Your task to perform on an android device: add a label to a message in the gmail app Image 0: 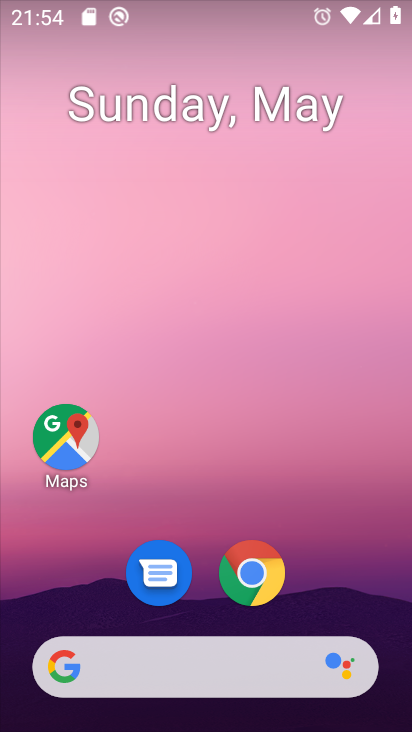
Step 0: drag from (221, 494) to (239, 18)
Your task to perform on an android device: add a label to a message in the gmail app Image 1: 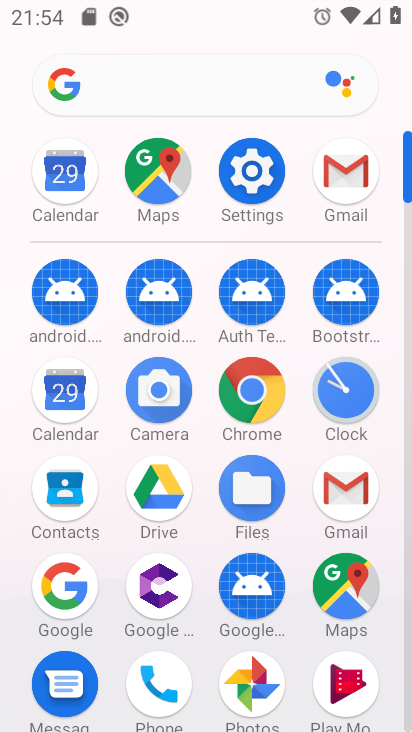
Step 1: click (343, 186)
Your task to perform on an android device: add a label to a message in the gmail app Image 2: 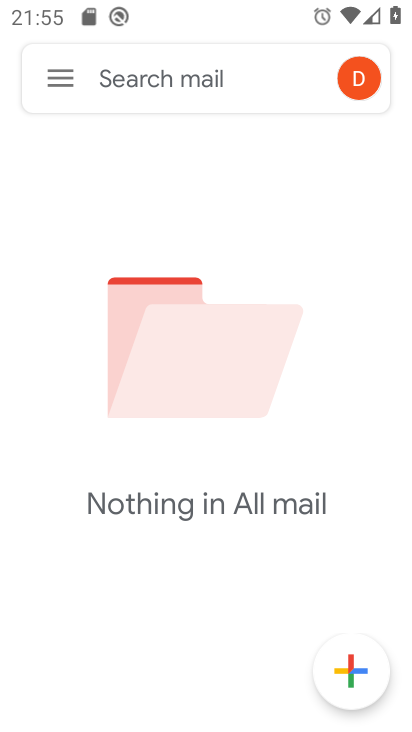
Step 2: task complete